Your task to perform on an android device: turn on improve location accuracy Image 0: 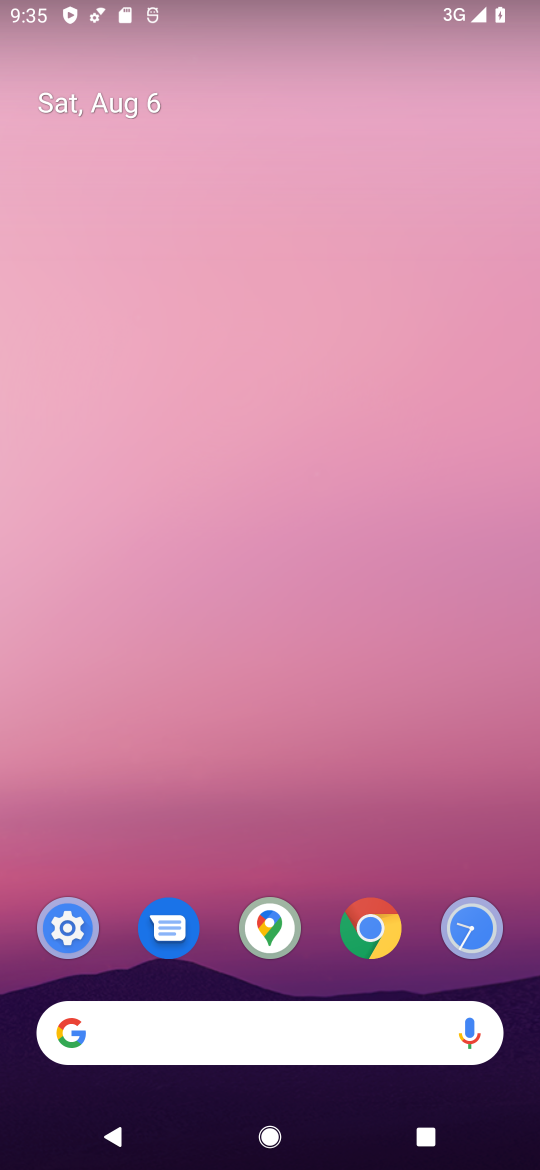
Step 0: click (273, 240)
Your task to perform on an android device: turn on improve location accuracy Image 1: 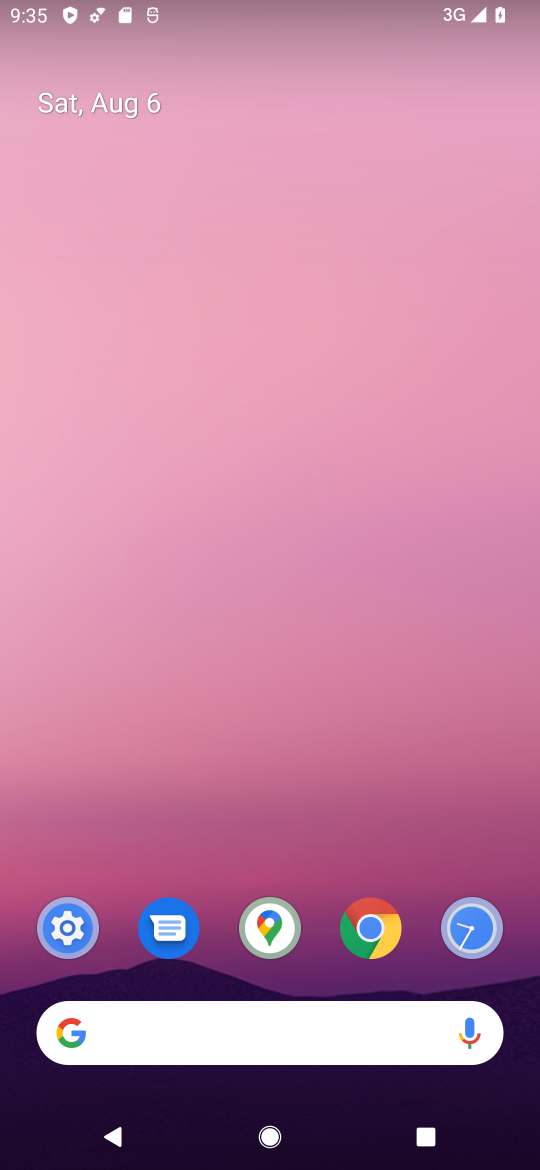
Step 1: drag from (276, 805) to (227, 169)
Your task to perform on an android device: turn on improve location accuracy Image 2: 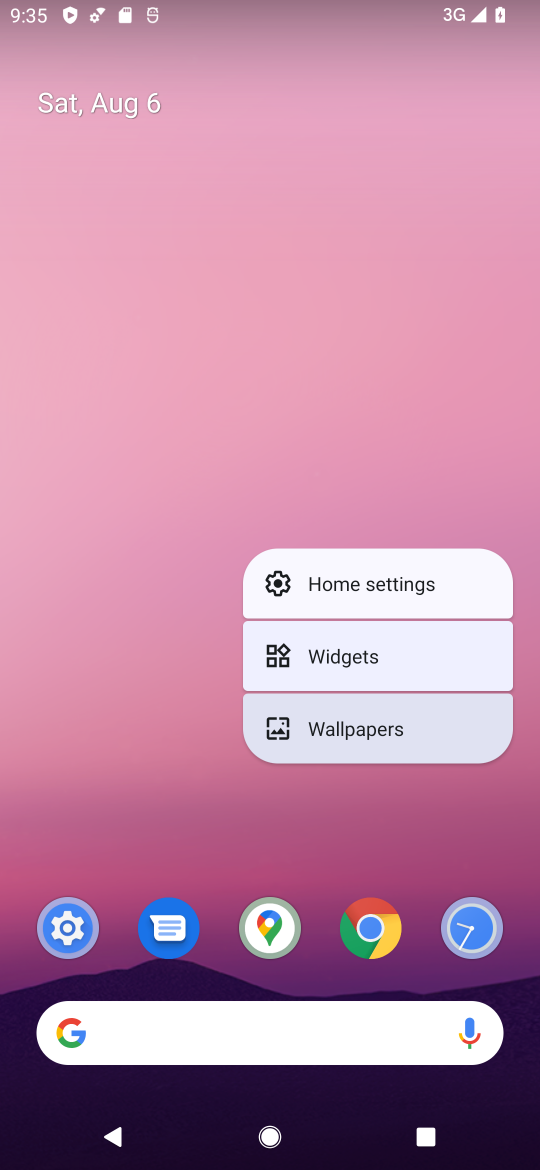
Step 2: click (107, 785)
Your task to perform on an android device: turn on improve location accuracy Image 3: 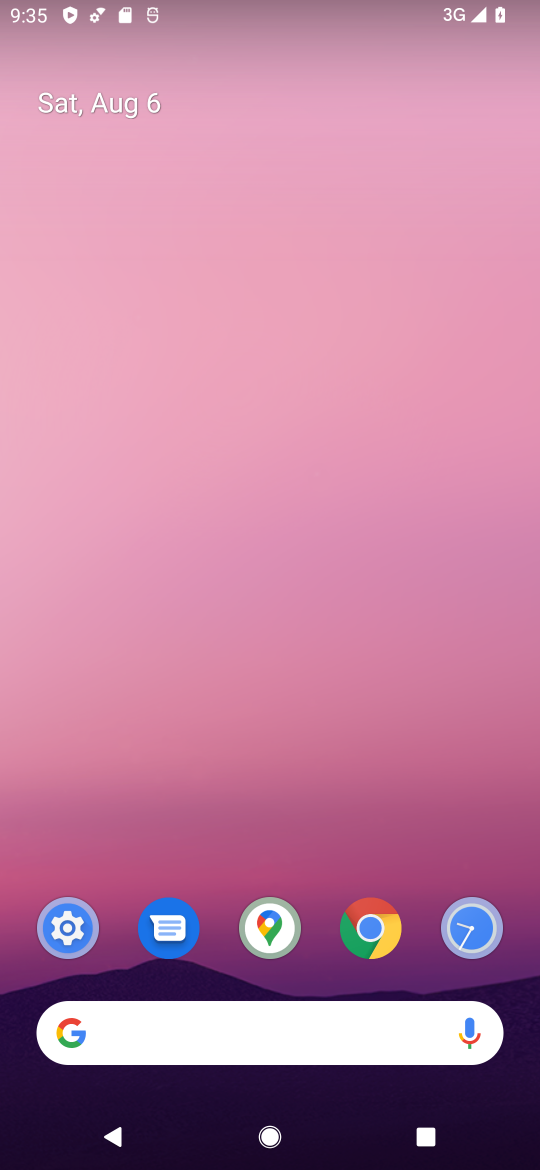
Step 3: drag from (268, 745) to (239, 32)
Your task to perform on an android device: turn on improve location accuracy Image 4: 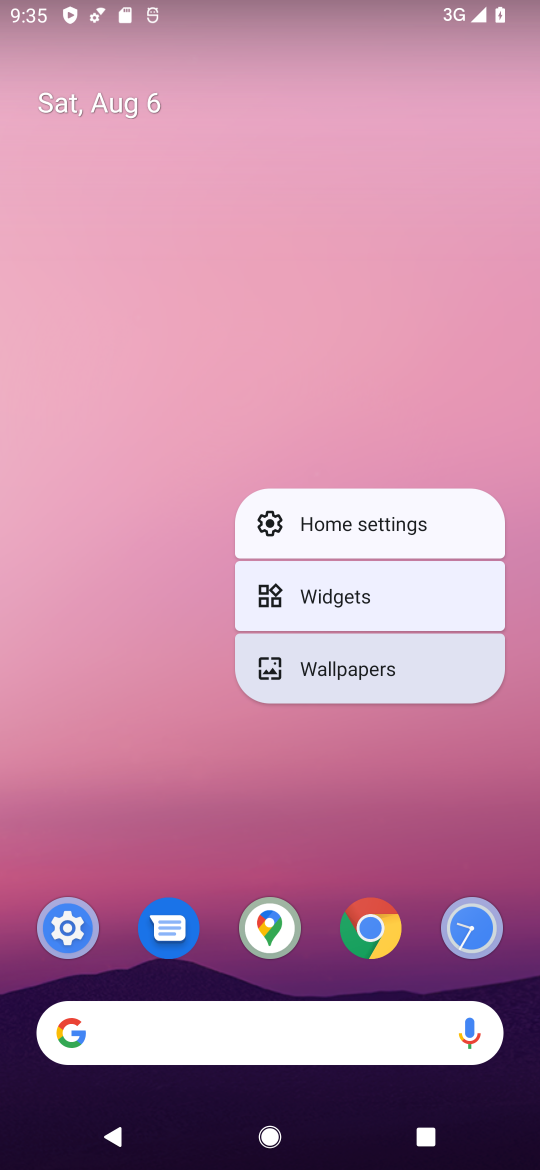
Step 4: click (129, 463)
Your task to perform on an android device: turn on improve location accuracy Image 5: 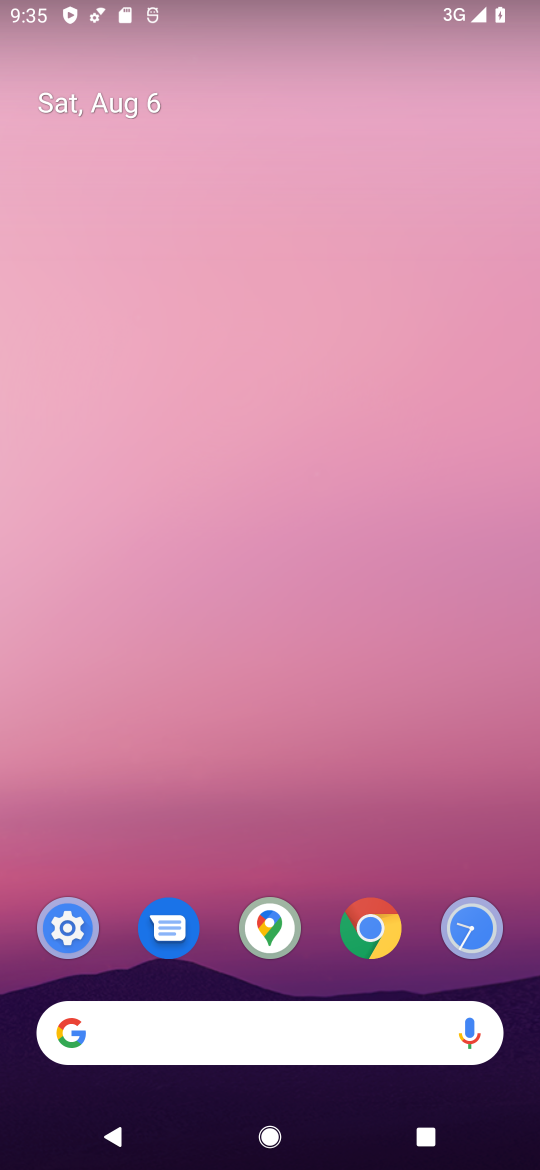
Step 5: drag from (272, 801) to (289, 230)
Your task to perform on an android device: turn on improve location accuracy Image 6: 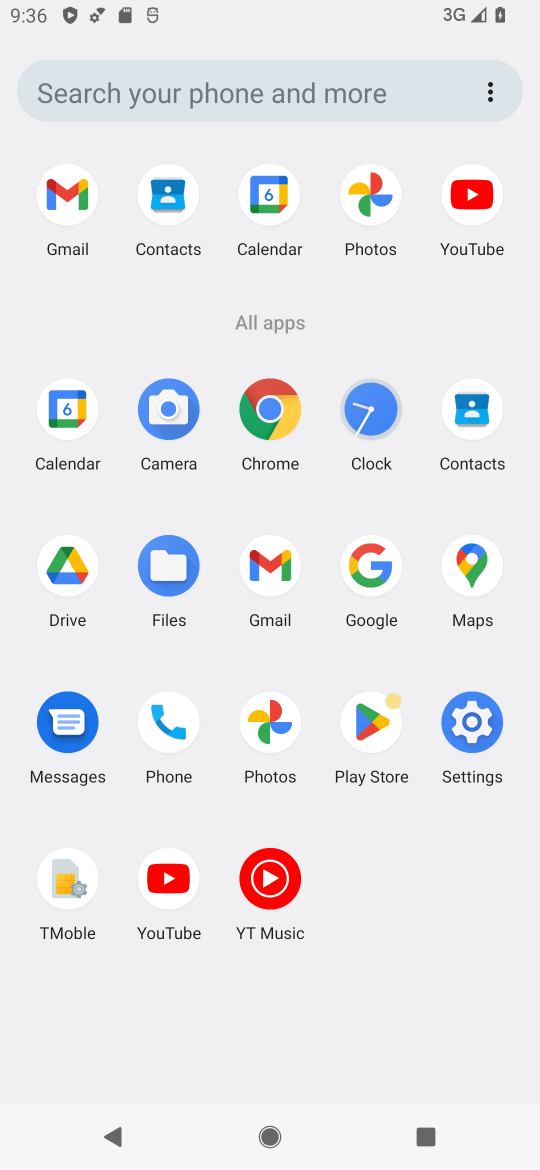
Step 6: click (474, 722)
Your task to perform on an android device: turn on improve location accuracy Image 7: 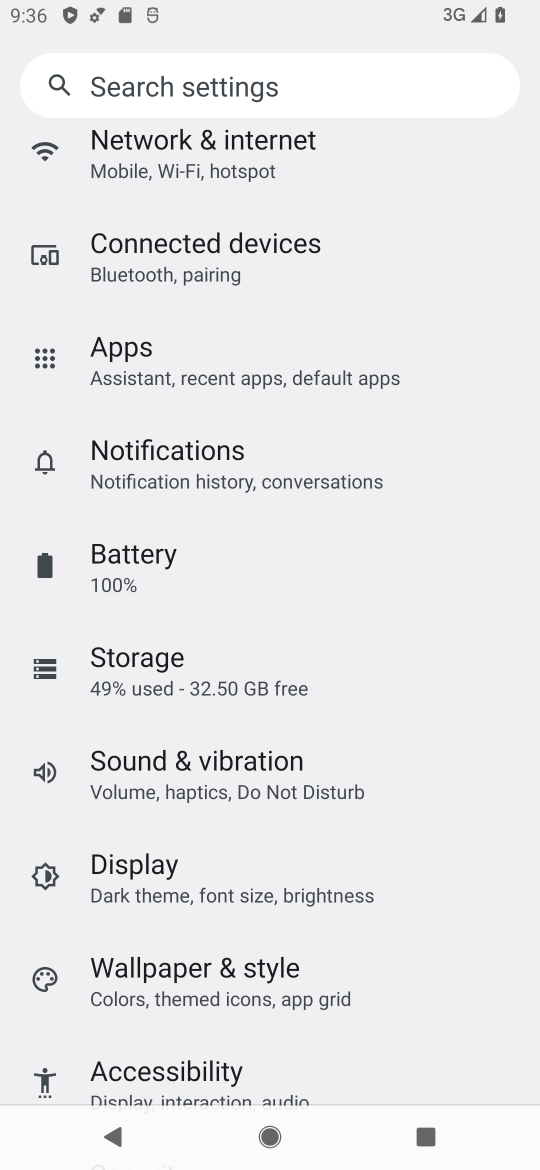
Step 7: drag from (396, 948) to (377, 383)
Your task to perform on an android device: turn on improve location accuracy Image 8: 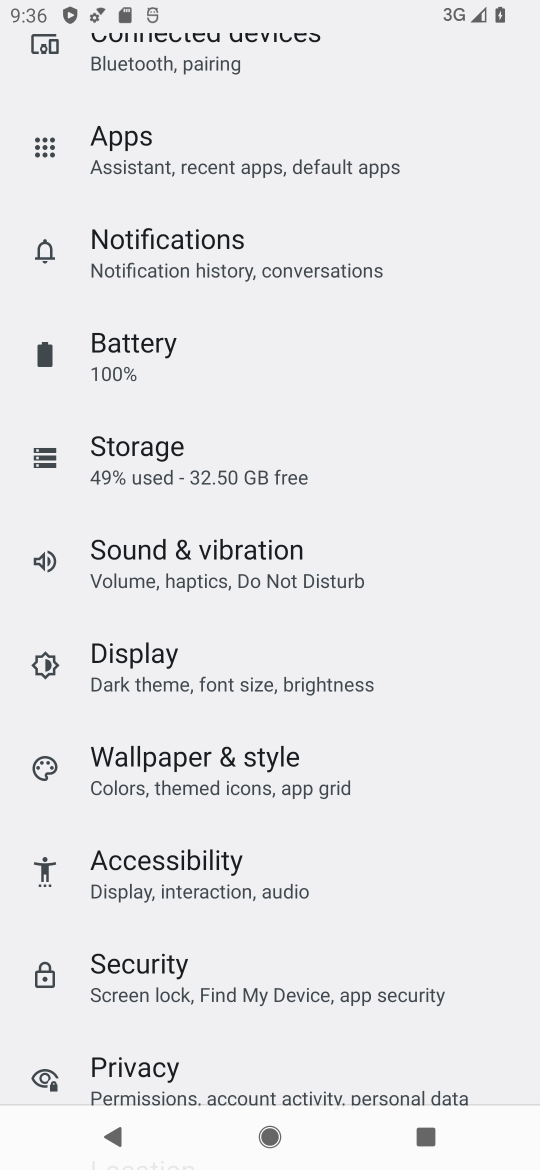
Step 8: drag from (327, 950) to (257, 234)
Your task to perform on an android device: turn on improve location accuracy Image 9: 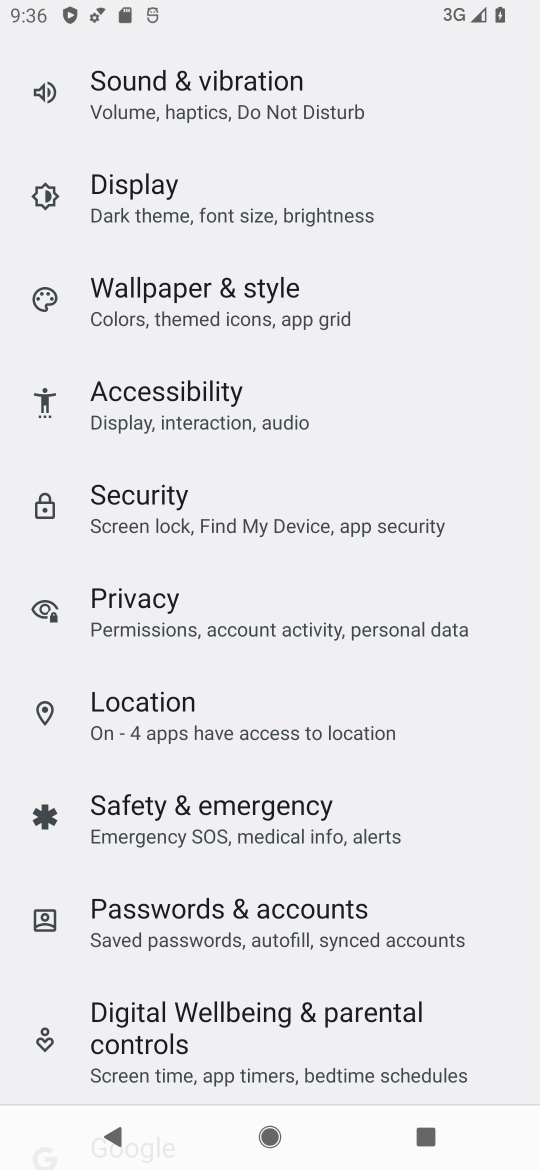
Step 9: click (152, 692)
Your task to perform on an android device: turn on improve location accuracy Image 10: 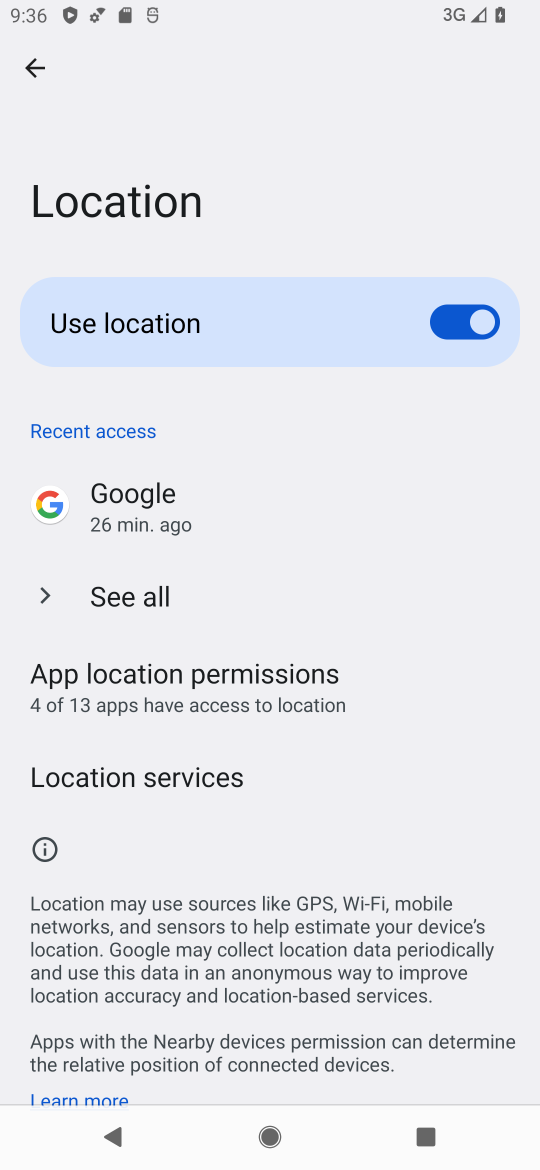
Step 10: drag from (290, 813) to (284, 418)
Your task to perform on an android device: turn on improve location accuracy Image 11: 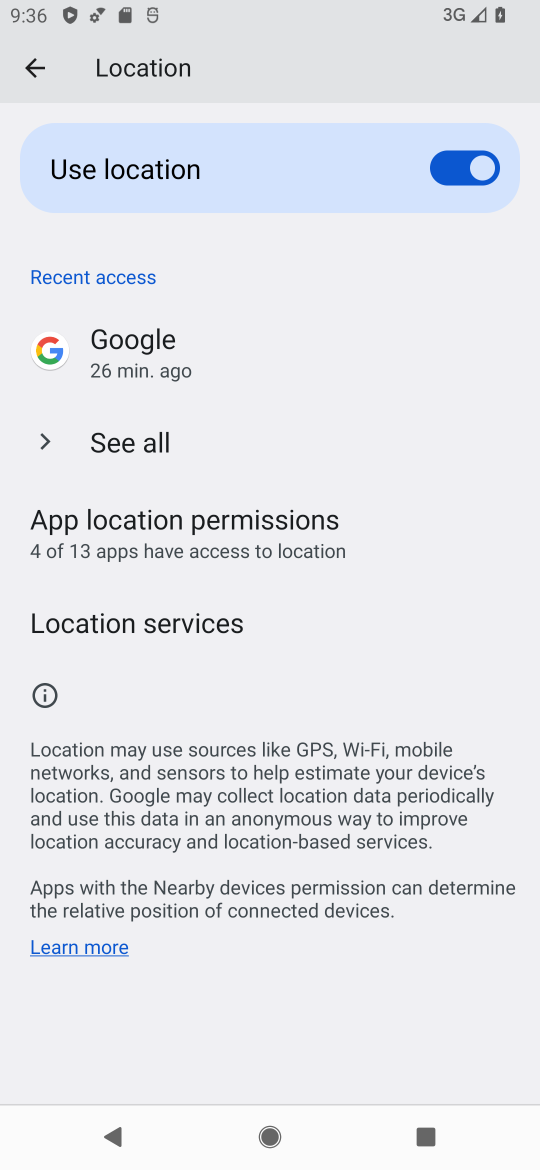
Step 11: click (93, 624)
Your task to perform on an android device: turn on improve location accuracy Image 12: 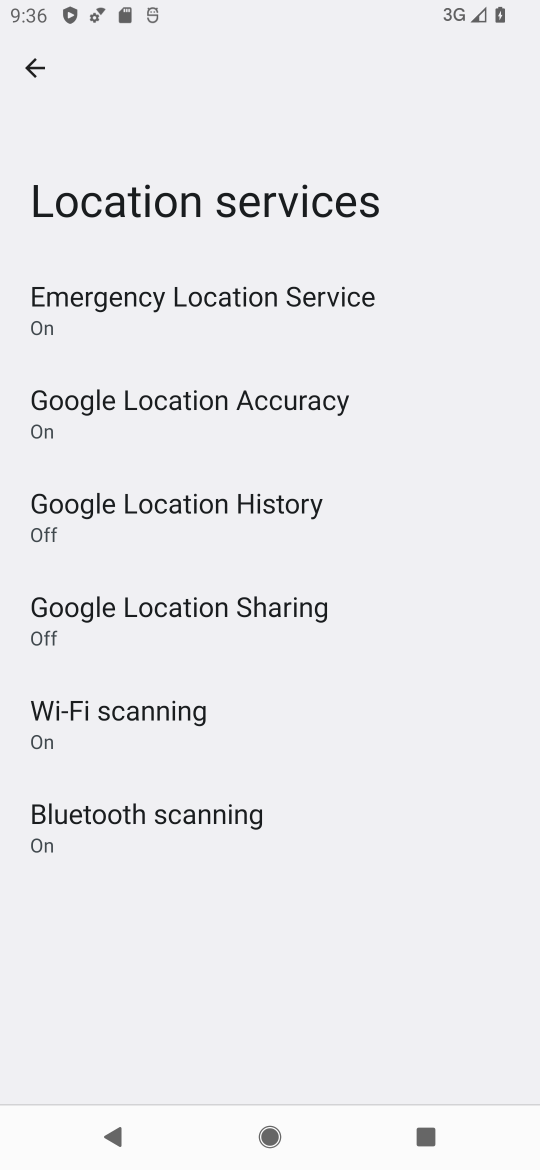
Step 12: click (201, 392)
Your task to perform on an android device: turn on improve location accuracy Image 13: 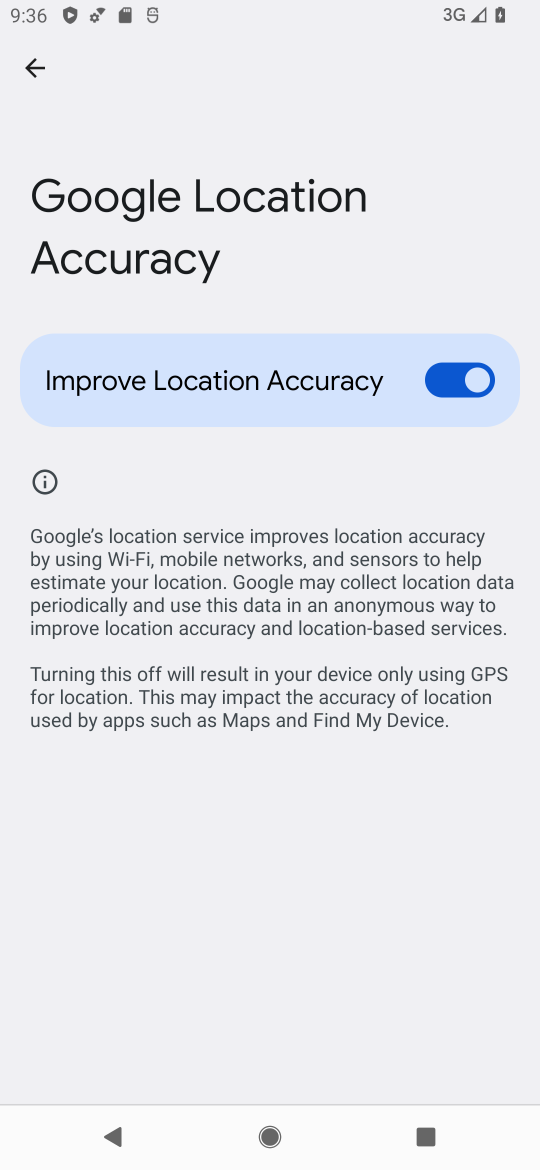
Step 13: task complete